Your task to perform on an android device: delete the emails in spam in the gmail app Image 0: 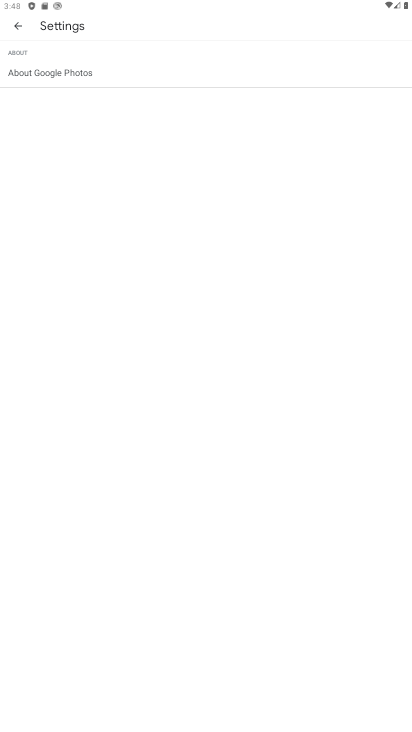
Step 0: press home button
Your task to perform on an android device: delete the emails in spam in the gmail app Image 1: 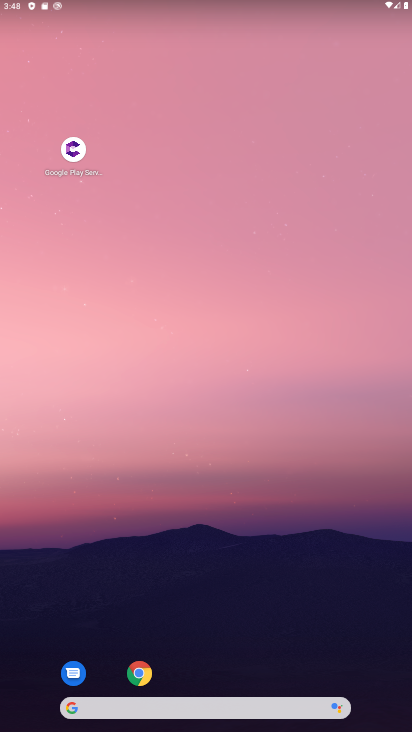
Step 1: drag from (283, 607) to (322, 71)
Your task to perform on an android device: delete the emails in spam in the gmail app Image 2: 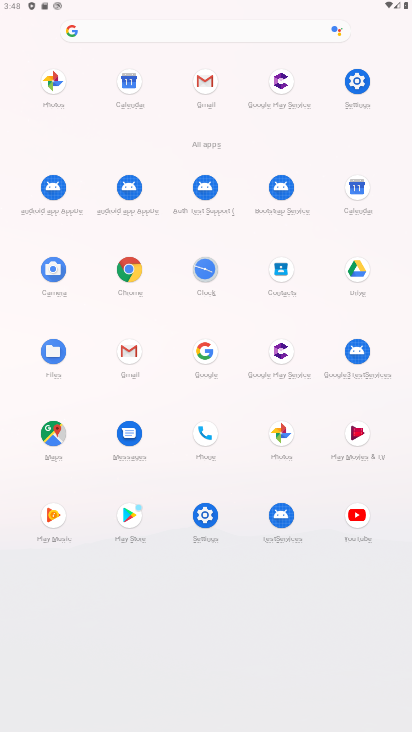
Step 2: click (120, 349)
Your task to perform on an android device: delete the emails in spam in the gmail app Image 3: 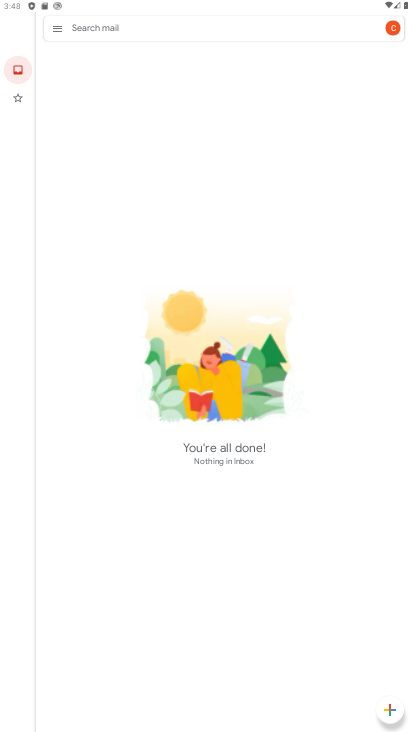
Step 3: click (51, 23)
Your task to perform on an android device: delete the emails in spam in the gmail app Image 4: 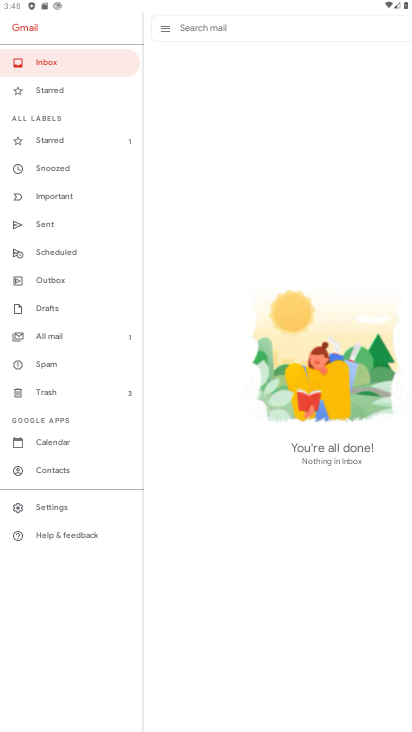
Step 4: click (55, 363)
Your task to perform on an android device: delete the emails in spam in the gmail app Image 5: 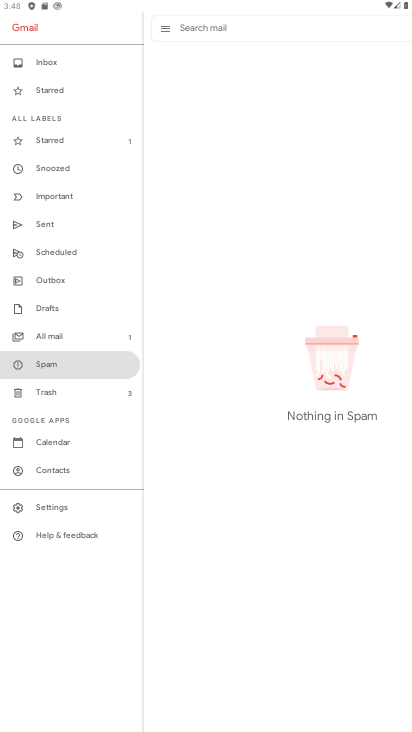
Step 5: task complete